Your task to perform on an android device: What's the weather going to be tomorrow? Image 0: 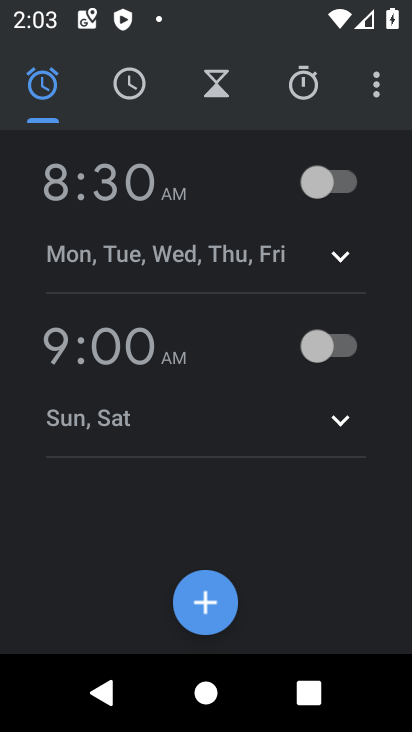
Step 0: press home button
Your task to perform on an android device: What's the weather going to be tomorrow? Image 1: 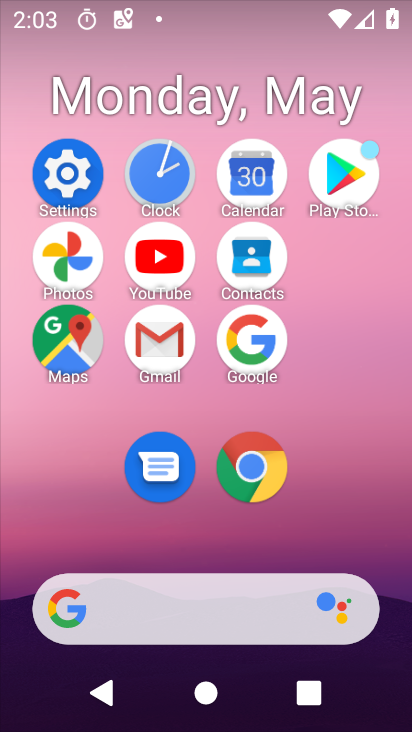
Step 1: click (248, 338)
Your task to perform on an android device: What's the weather going to be tomorrow? Image 2: 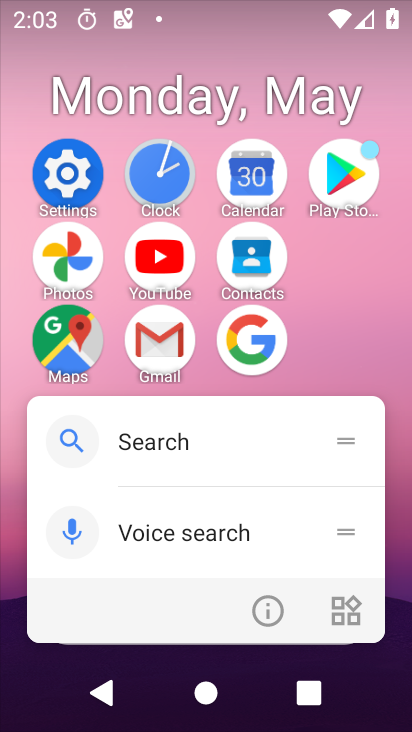
Step 2: click (248, 338)
Your task to perform on an android device: What's the weather going to be tomorrow? Image 3: 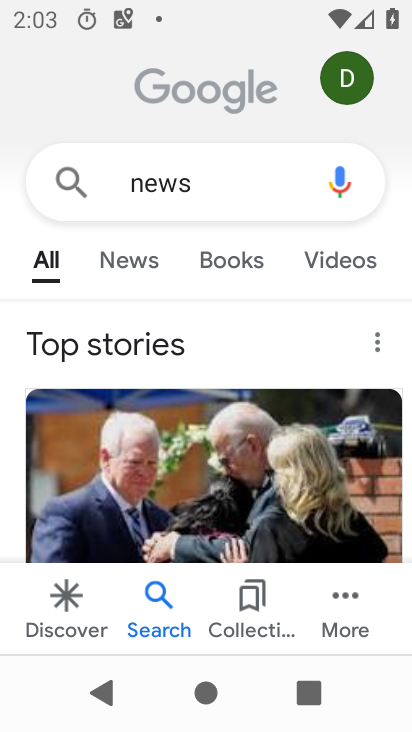
Step 3: click (220, 156)
Your task to perform on an android device: What's the weather going to be tomorrow? Image 4: 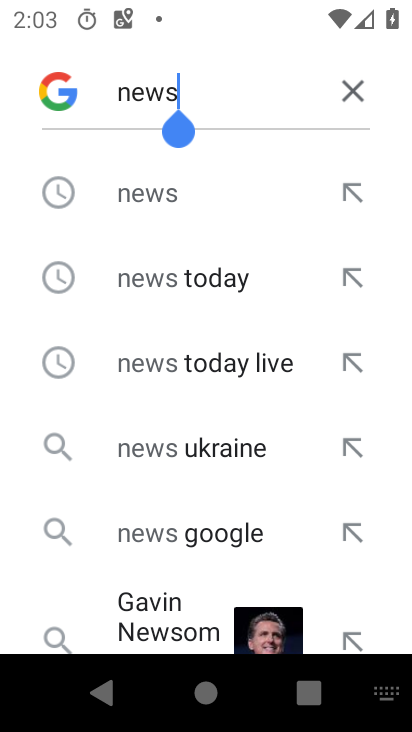
Step 4: click (355, 92)
Your task to perform on an android device: What's the weather going to be tomorrow? Image 5: 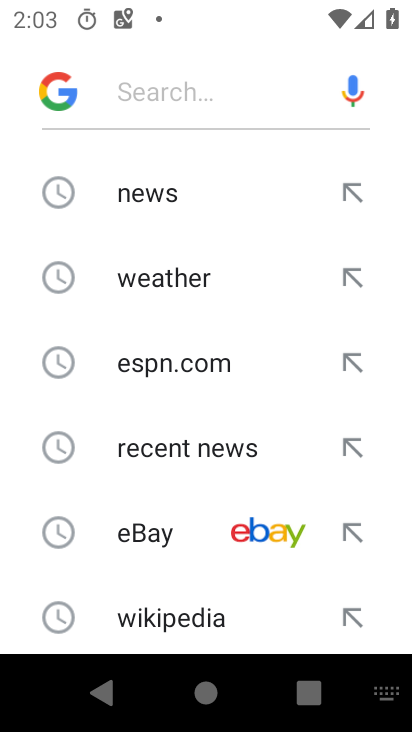
Step 5: click (159, 298)
Your task to perform on an android device: What's the weather going to be tomorrow? Image 6: 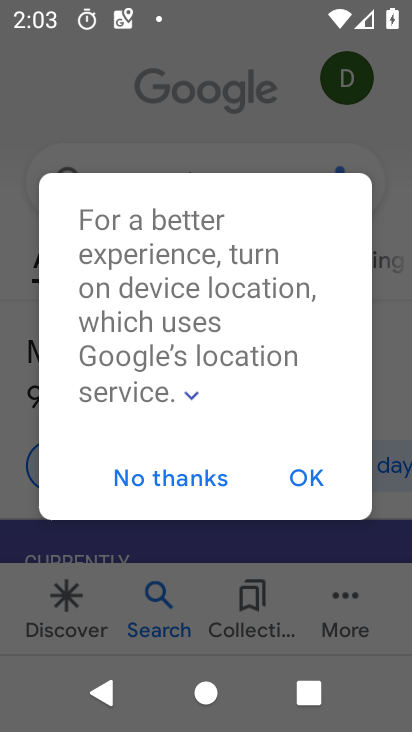
Step 6: click (323, 471)
Your task to perform on an android device: What's the weather going to be tomorrow? Image 7: 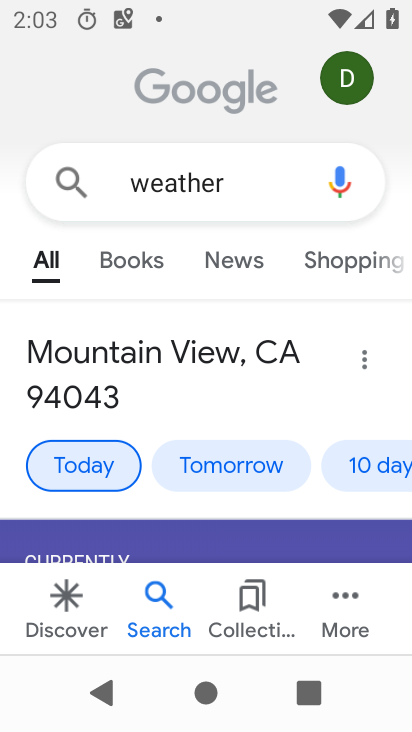
Step 7: click (218, 470)
Your task to perform on an android device: What's the weather going to be tomorrow? Image 8: 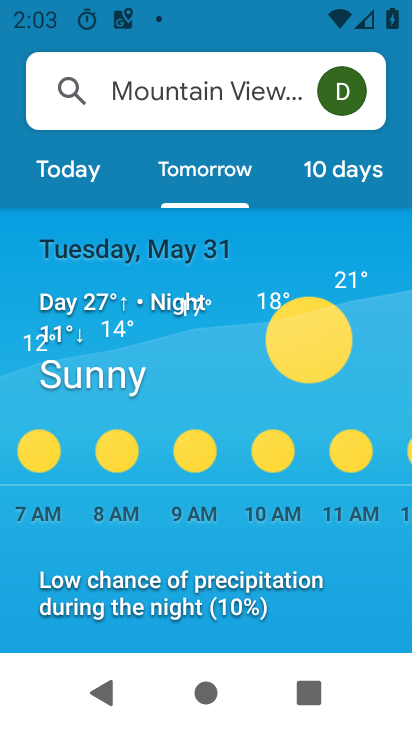
Step 8: task complete